Your task to perform on an android device: uninstall "Microsoft Authenticator" Image 0: 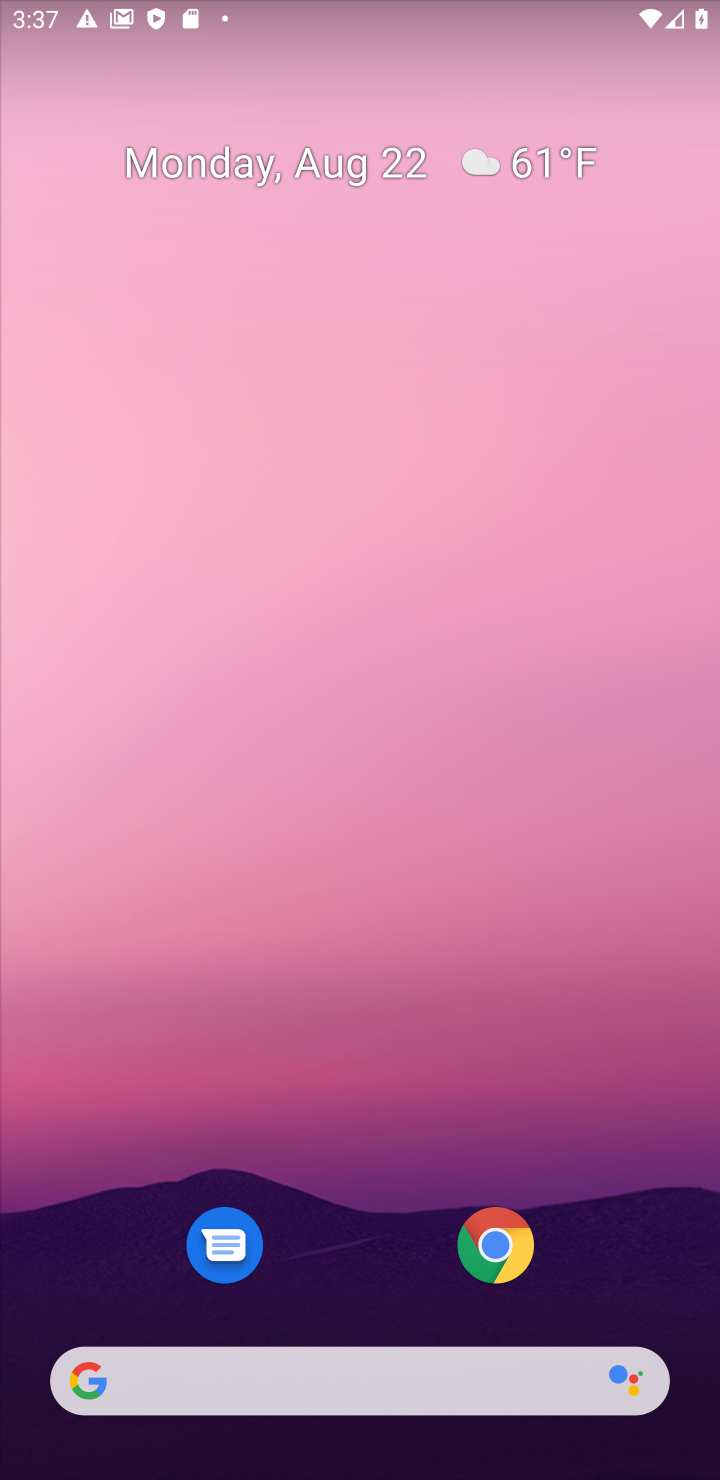
Step 0: press home button
Your task to perform on an android device: uninstall "Microsoft Authenticator" Image 1: 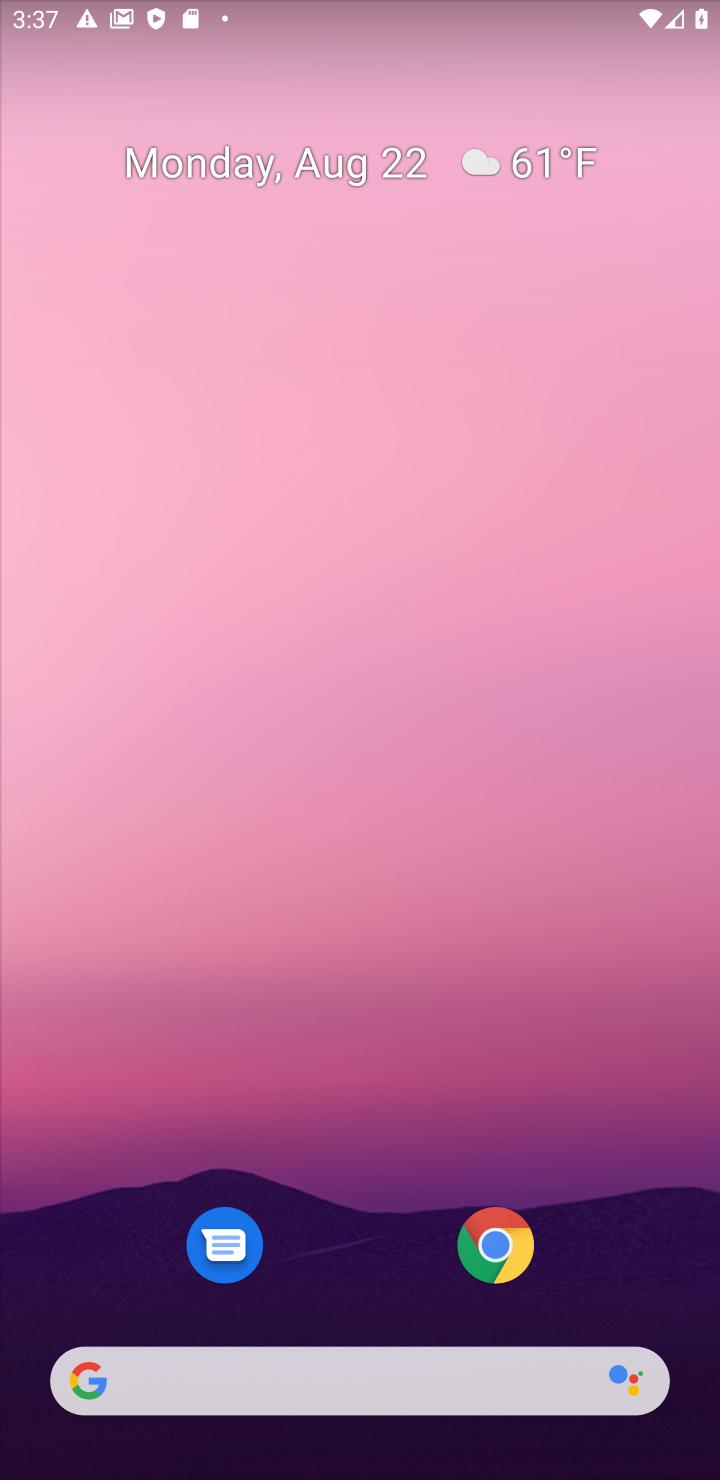
Step 1: drag from (653, 1247) to (678, 153)
Your task to perform on an android device: uninstall "Microsoft Authenticator" Image 2: 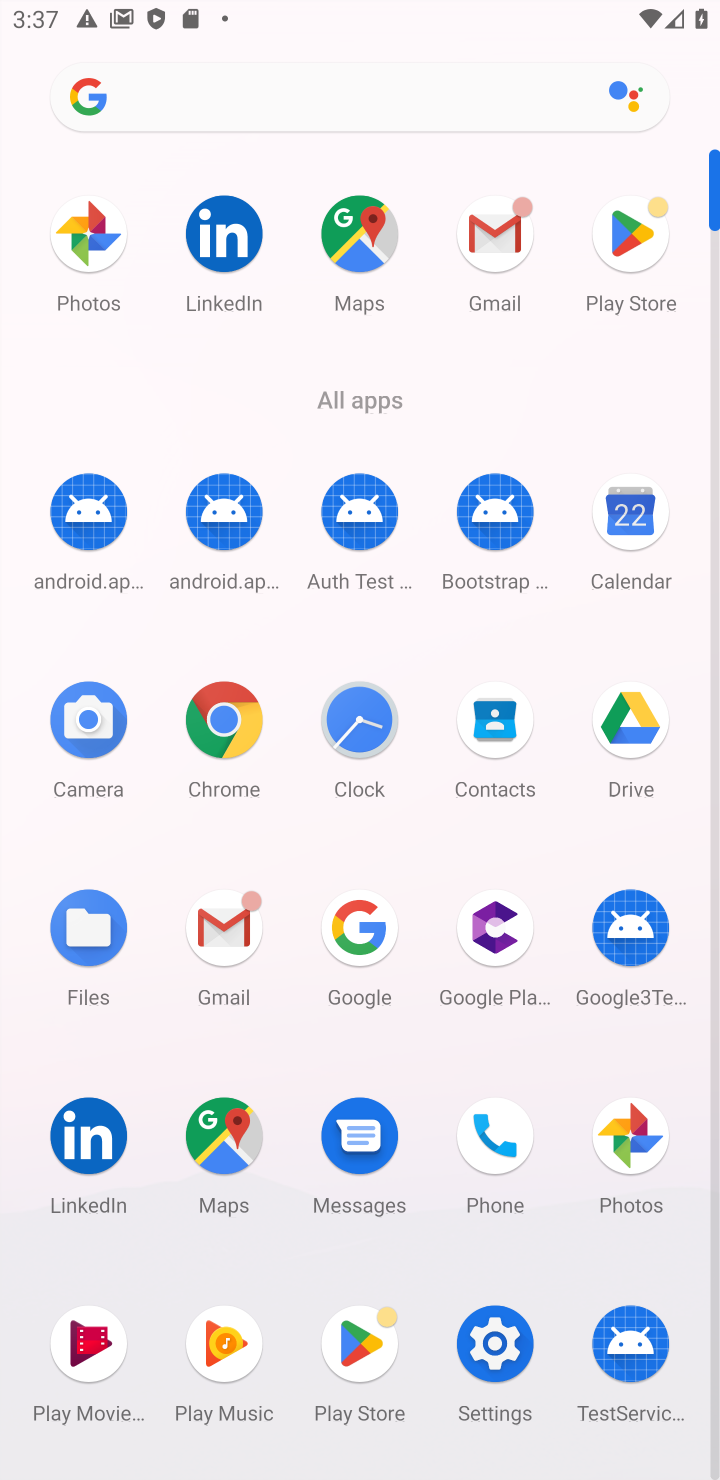
Step 2: click (623, 232)
Your task to perform on an android device: uninstall "Microsoft Authenticator" Image 3: 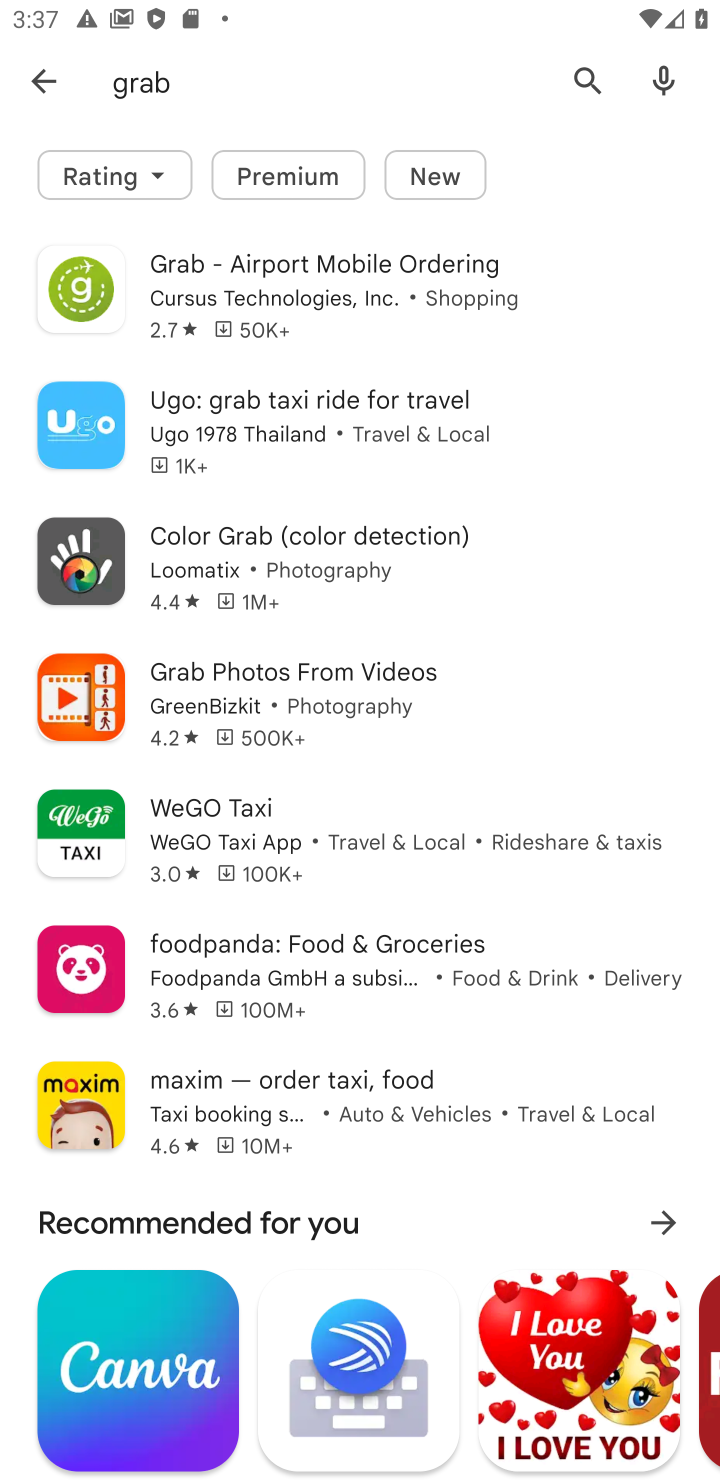
Step 3: press back button
Your task to perform on an android device: uninstall "Microsoft Authenticator" Image 4: 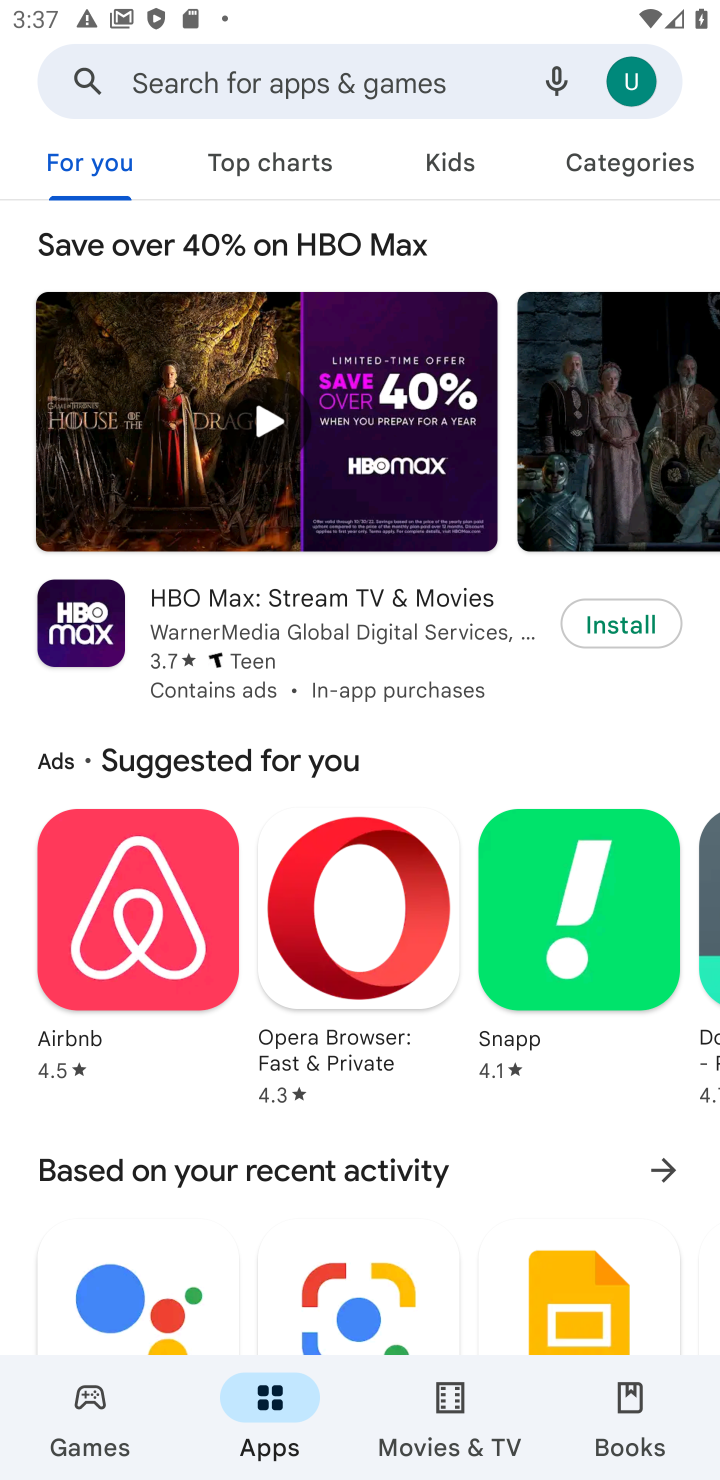
Step 4: click (454, 88)
Your task to perform on an android device: uninstall "Microsoft Authenticator" Image 5: 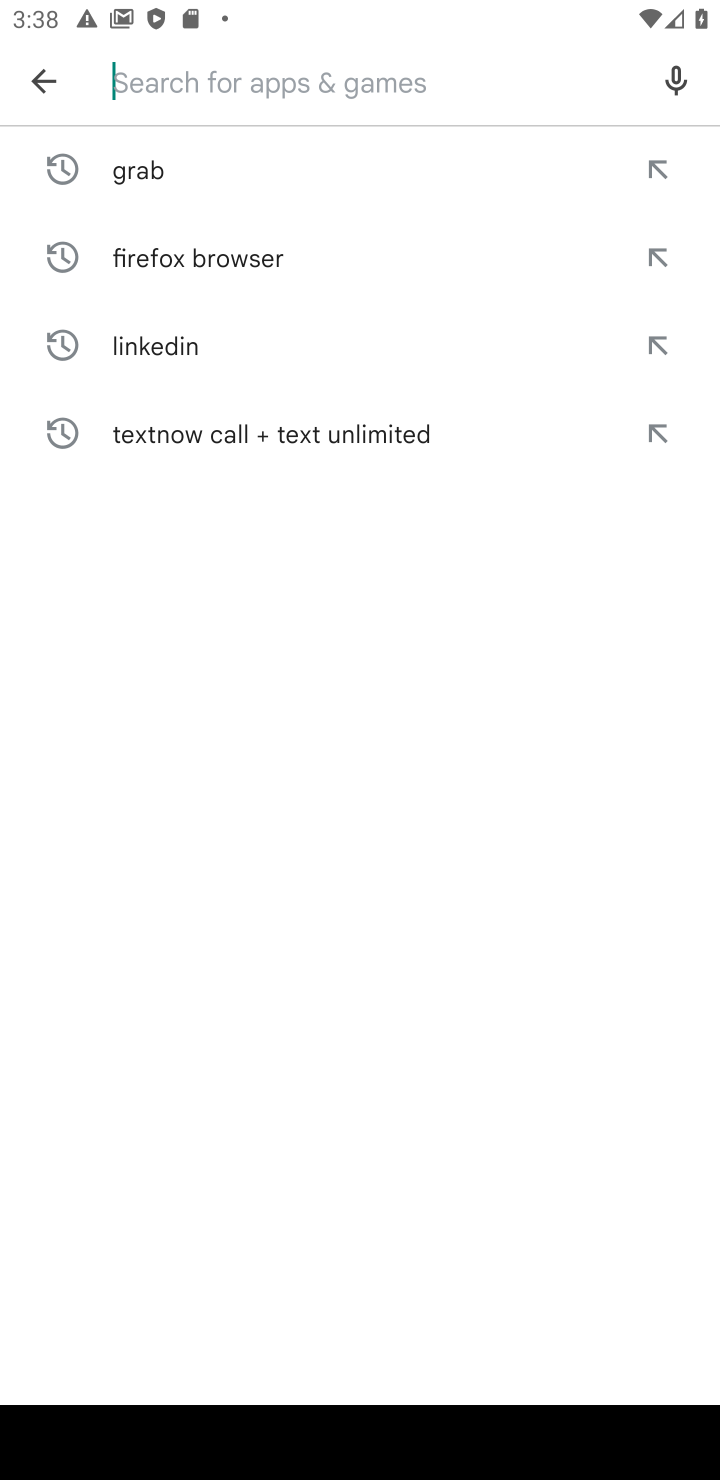
Step 5: press enter
Your task to perform on an android device: uninstall "Microsoft Authenticator" Image 6: 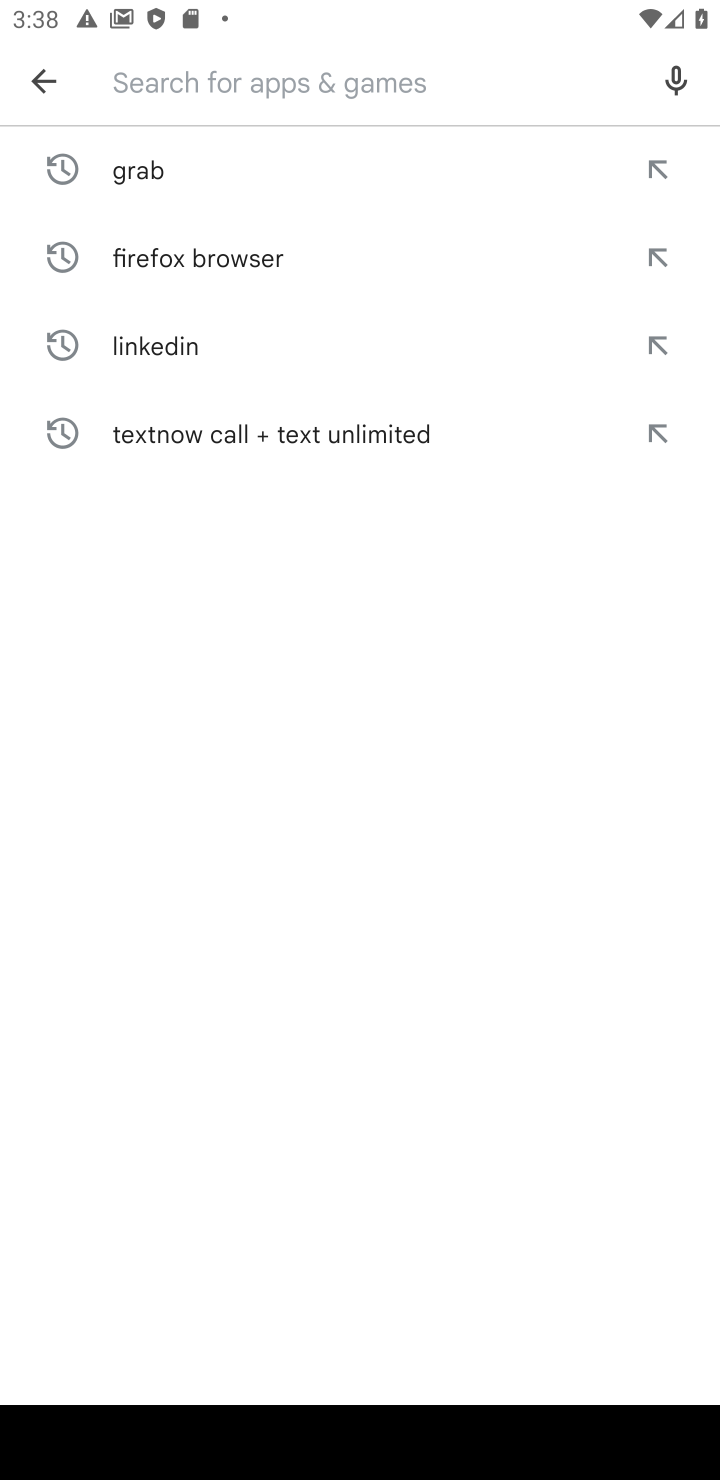
Step 6: type "Microsoft Authenticator"
Your task to perform on an android device: uninstall "Microsoft Authenticator" Image 7: 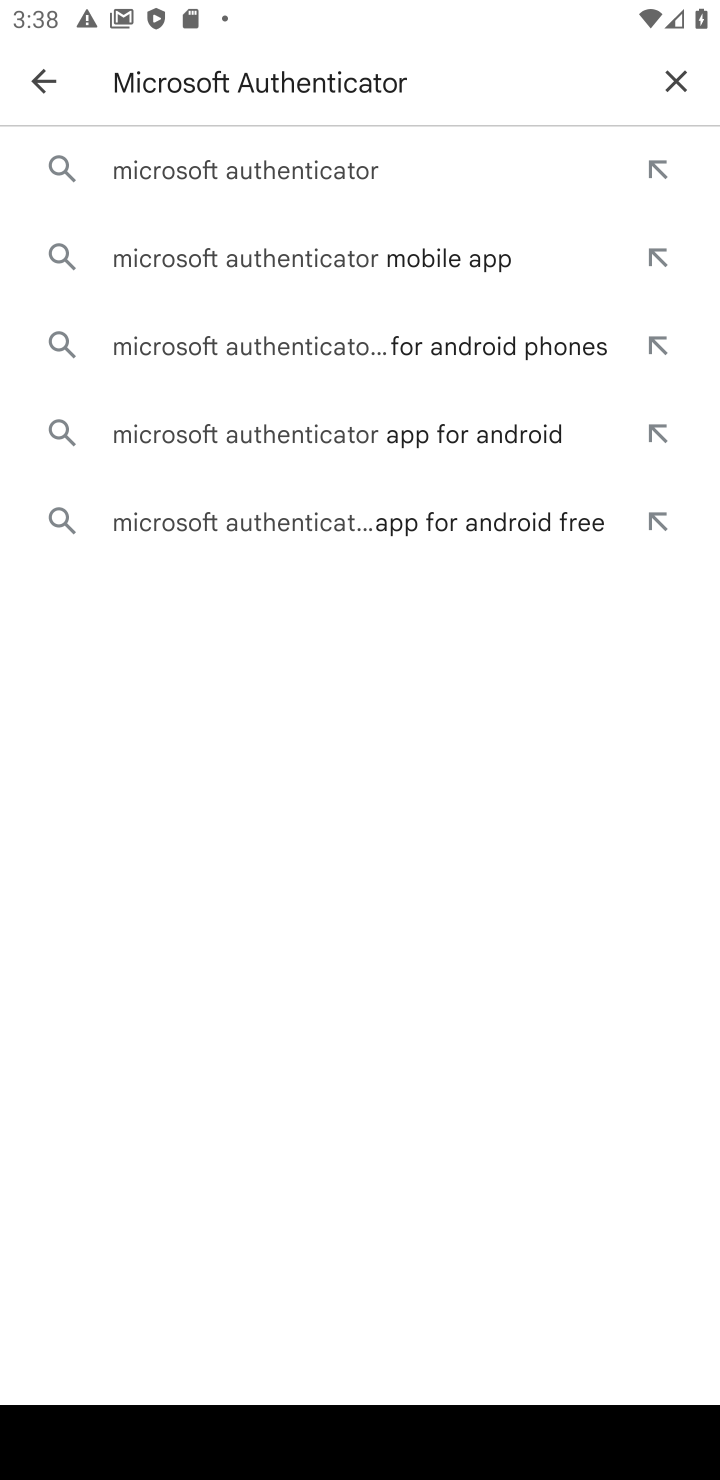
Step 7: click (394, 169)
Your task to perform on an android device: uninstall "Microsoft Authenticator" Image 8: 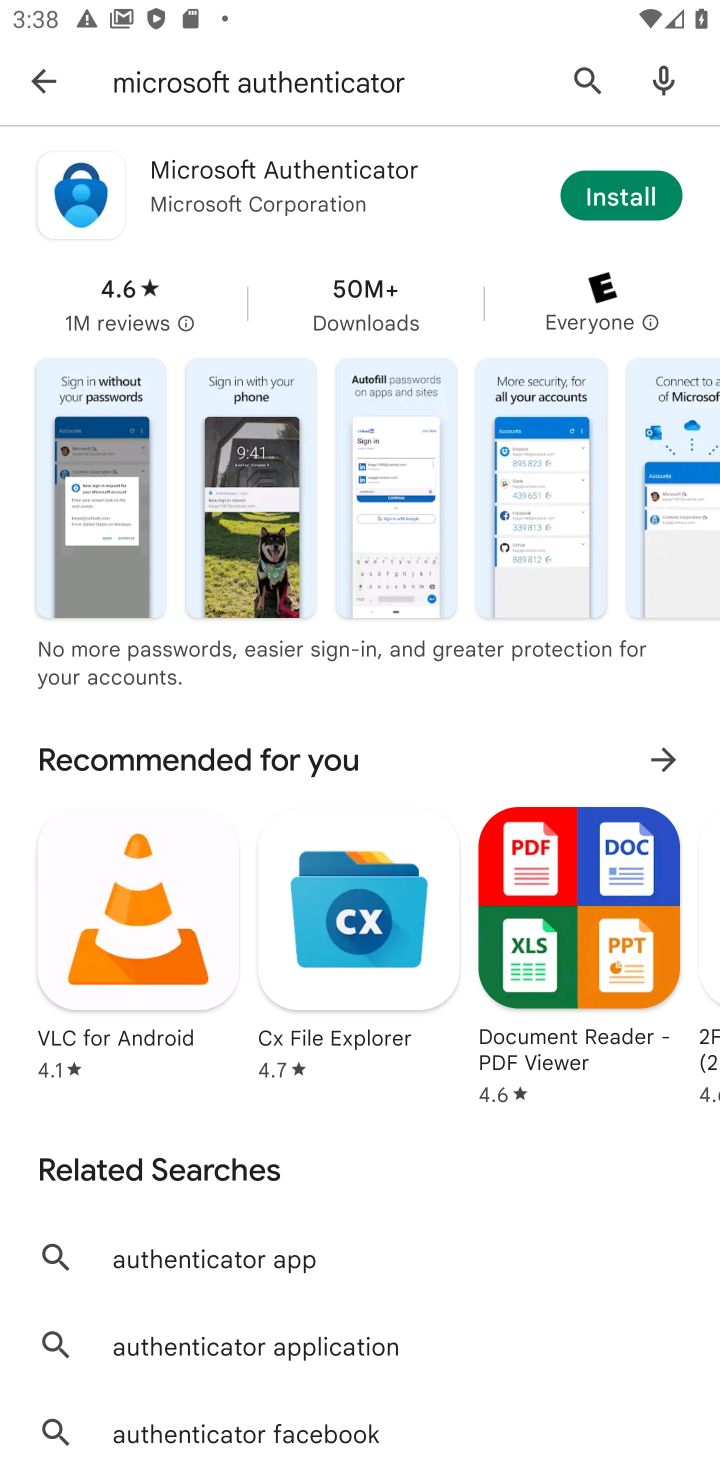
Step 8: task complete